Your task to perform on an android device: Open calendar and show me the fourth week of next month Image 0: 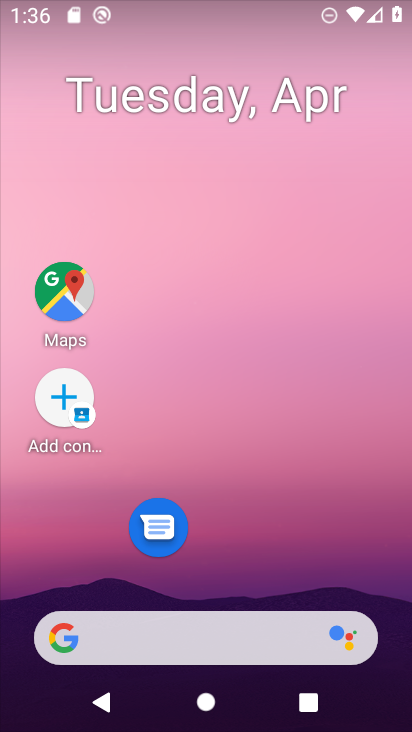
Step 0: drag from (272, 567) to (242, 40)
Your task to perform on an android device: Open calendar and show me the fourth week of next month Image 1: 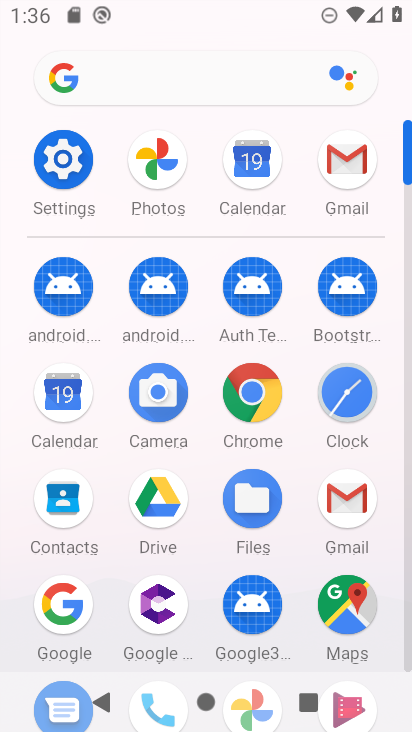
Step 1: click (63, 403)
Your task to perform on an android device: Open calendar and show me the fourth week of next month Image 2: 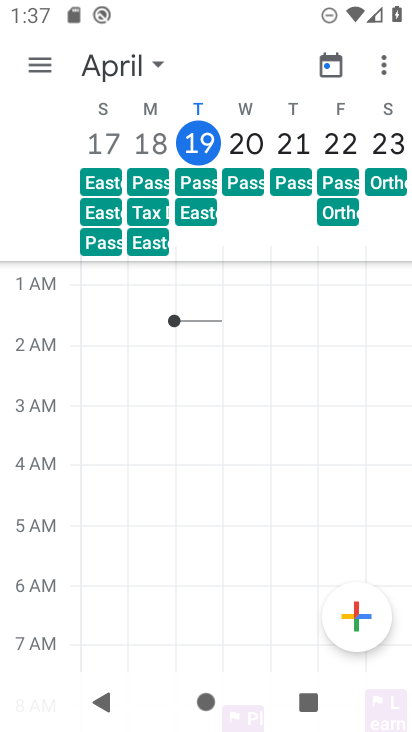
Step 2: click (330, 68)
Your task to perform on an android device: Open calendar and show me the fourth week of next month Image 3: 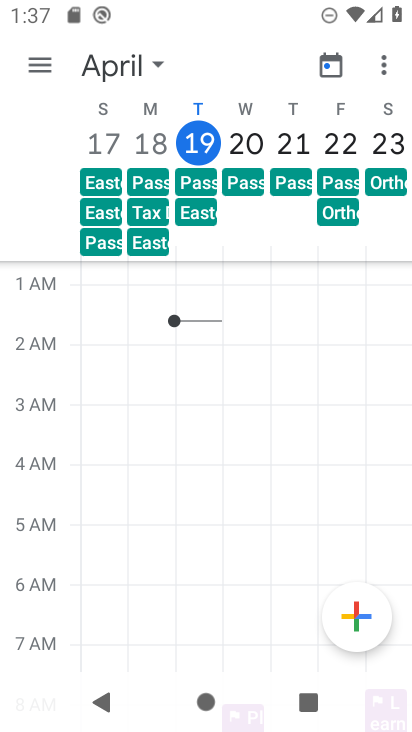
Step 3: click (160, 68)
Your task to perform on an android device: Open calendar and show me the fourth week of next month Image 4: 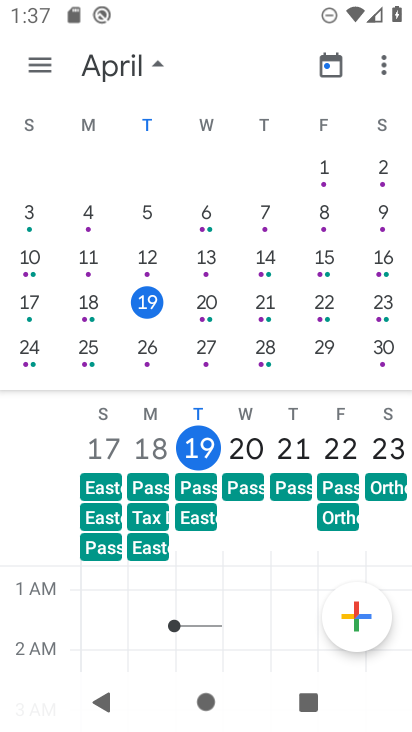
Step 4: drag from (360, 300) to (45, 353)
Your task to perform on an android device: Open calendar and show me the fourth week of next month Image 5: 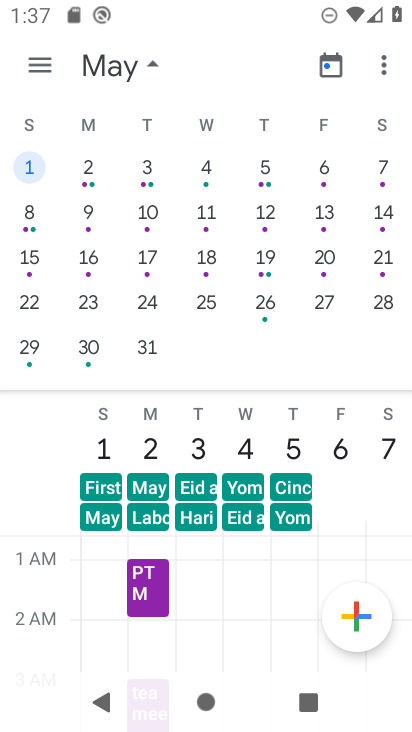
Step 5: click (95, 301)
Your task to perform on an android device: Open calendar and show me the fourth week of next month Image 6: 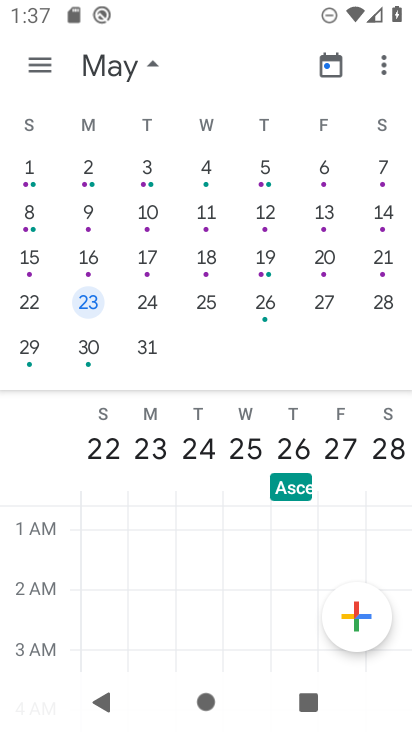
Step 6: click (38, 62)
Your task to perform on an android device: Open calendar and show me the fourth week of next month Image 7: 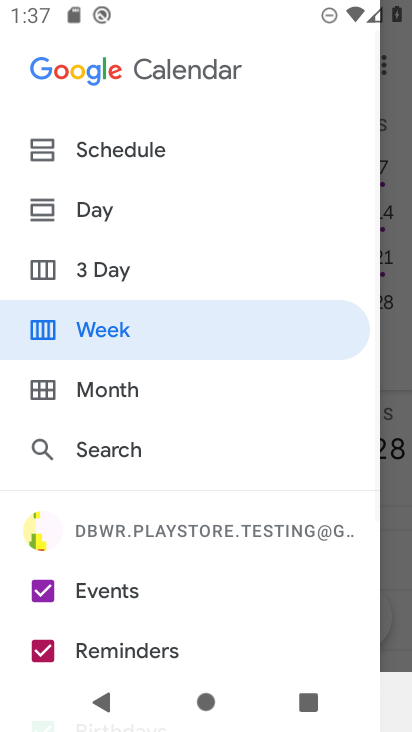
Step 7: click (114, 327)
Your task to perform on an android device: Open calendar and show me the fourth week of next month Image 8: 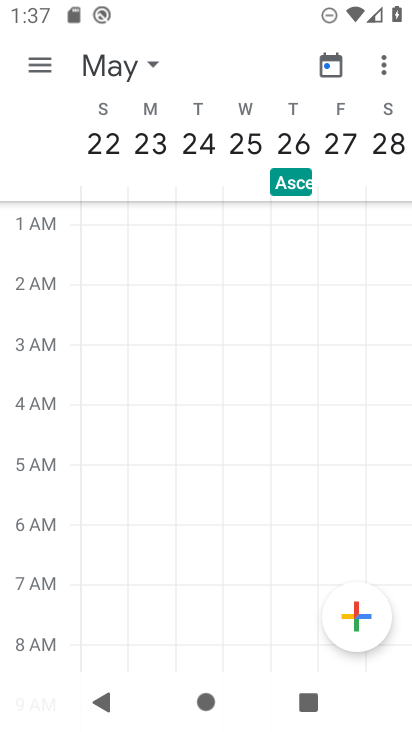
Step 8: task complete